Your task to perform on an android device: Go to Wikipedia Image 0: 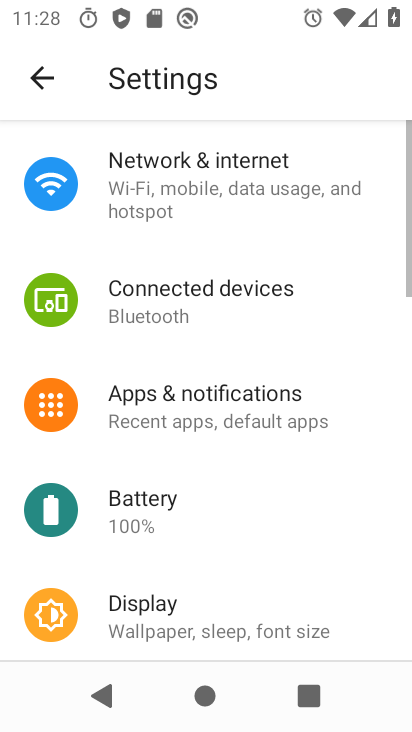
Step 0: press home button
Your task to perform on an android device: Go to Wikipedia Image 1: 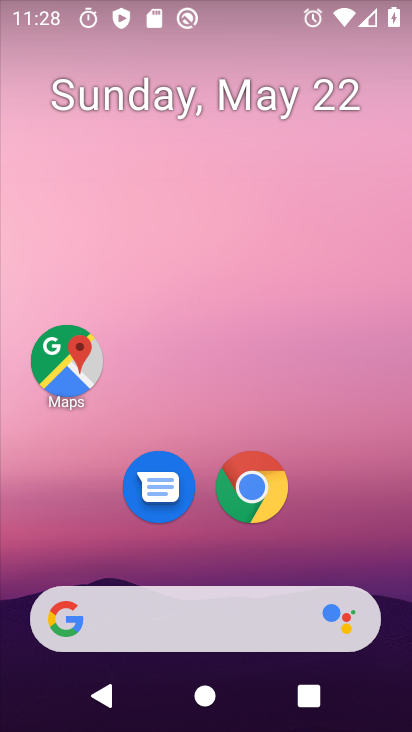
Step 1: drag from (342, 545) to (341, 191)
Your task to perform on an android device: Go to Wikipedia Image 2: 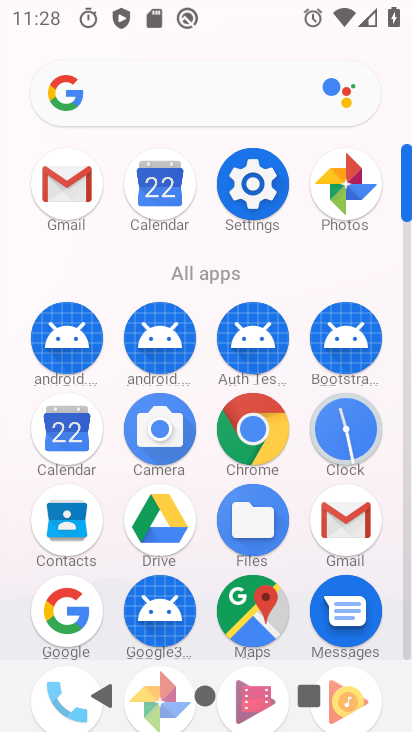
Step 2: click (260, 448)
Your task to perform on an android device: Go to Wikipedia Image 3: 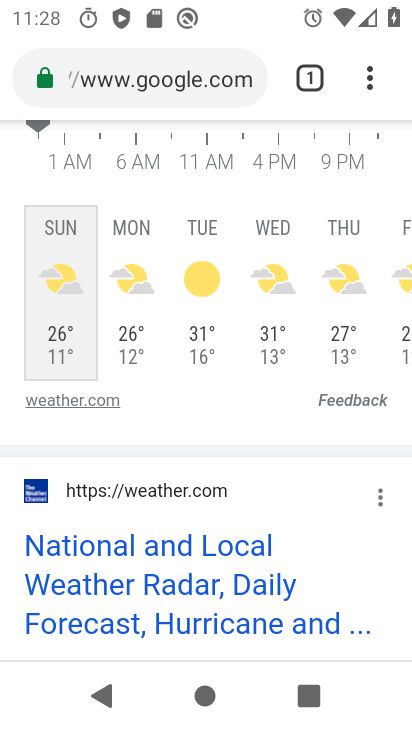
Step 3: click (171, 77)
Your task to perform on an android device: Go to Wikipedia Image 4: 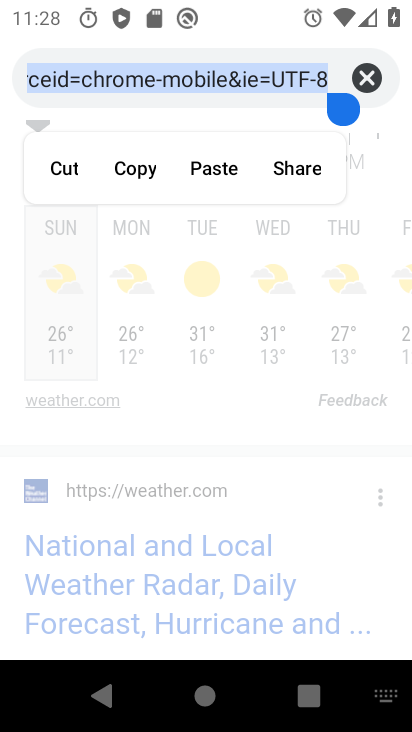
Step 4: click (375, 77)
Your task to perform on an android device: Go to Wikipedia Image 5: 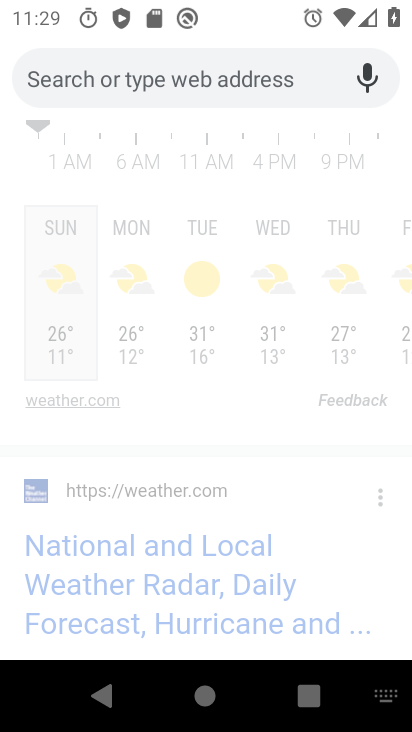
Step 5: type "wikipedia"
Your task to perform on an android device: Go to Wikipedia Image 6: 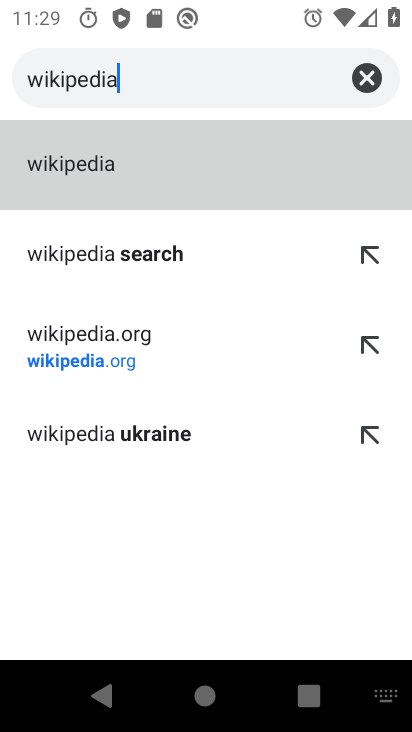
Step 6: click (142, 173)
Your task to perform on an android device: Go to Wikipedia Image 7: 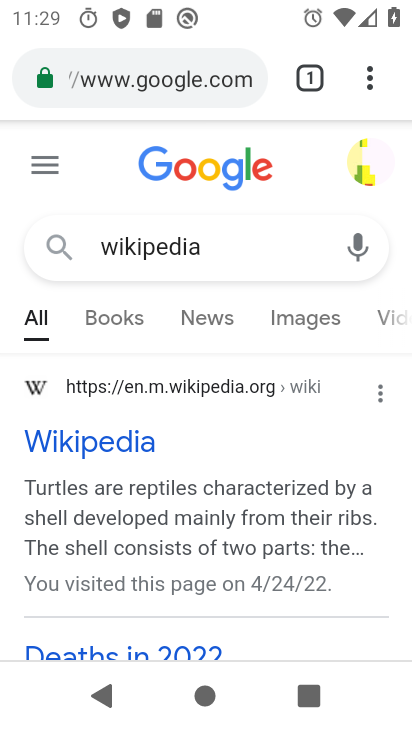
Step 7: click (119, 441)
Your task to perform on an android device: Go to Wikipedia Image 8: 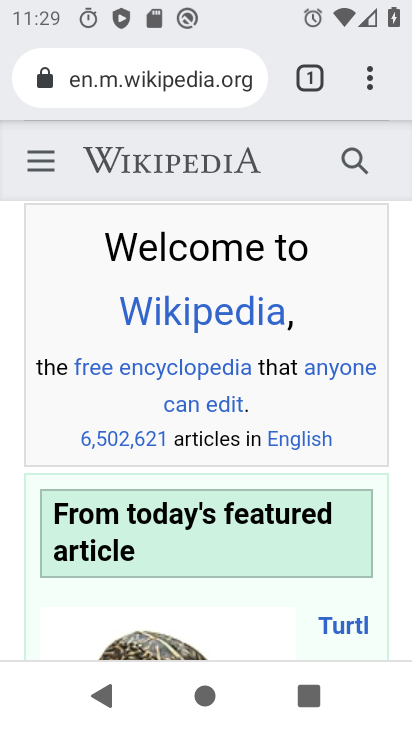
Step 8: task complete